Your task to perform on an android device: change the upload size in google photos Image 0: 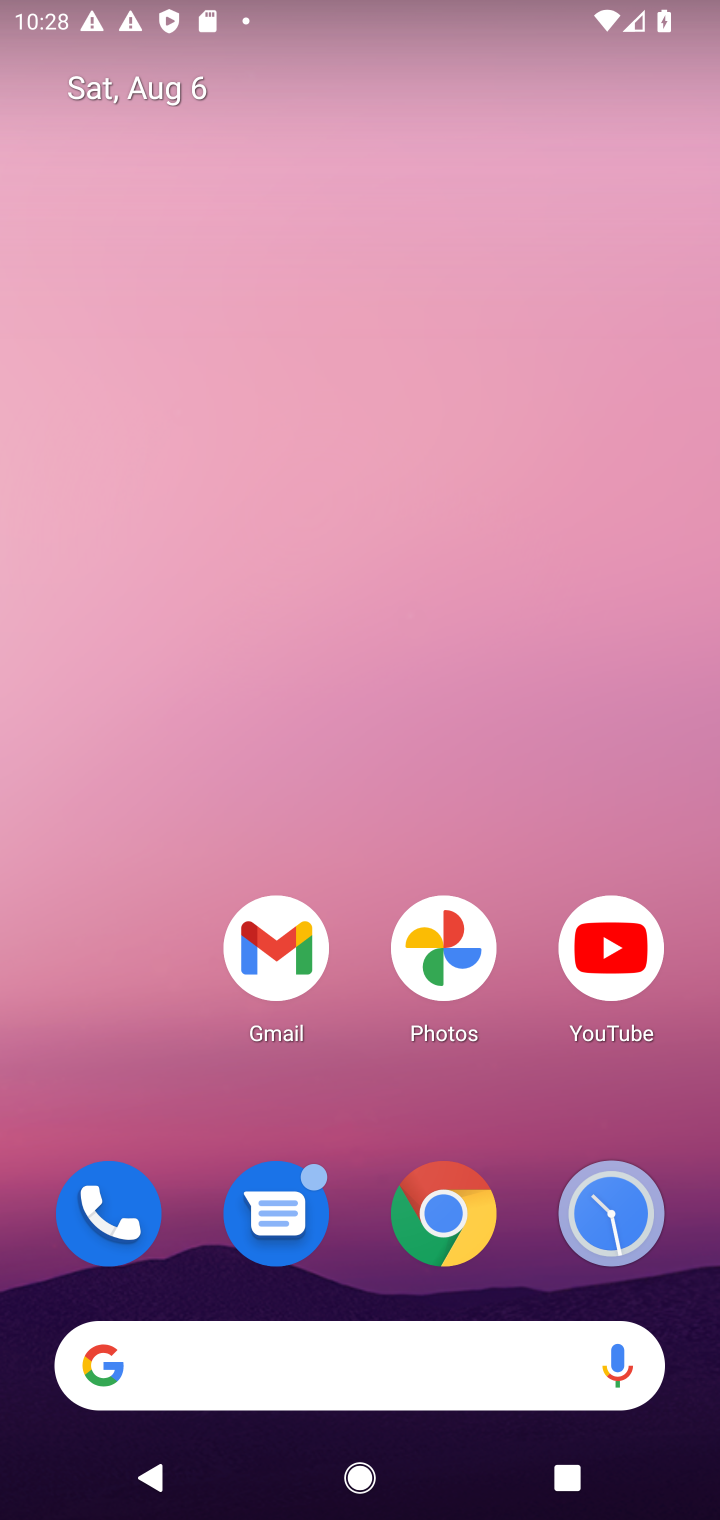
Step 0: click (444, 944)
Your task to perform on an android device: change the upload size in google photos Image 1: 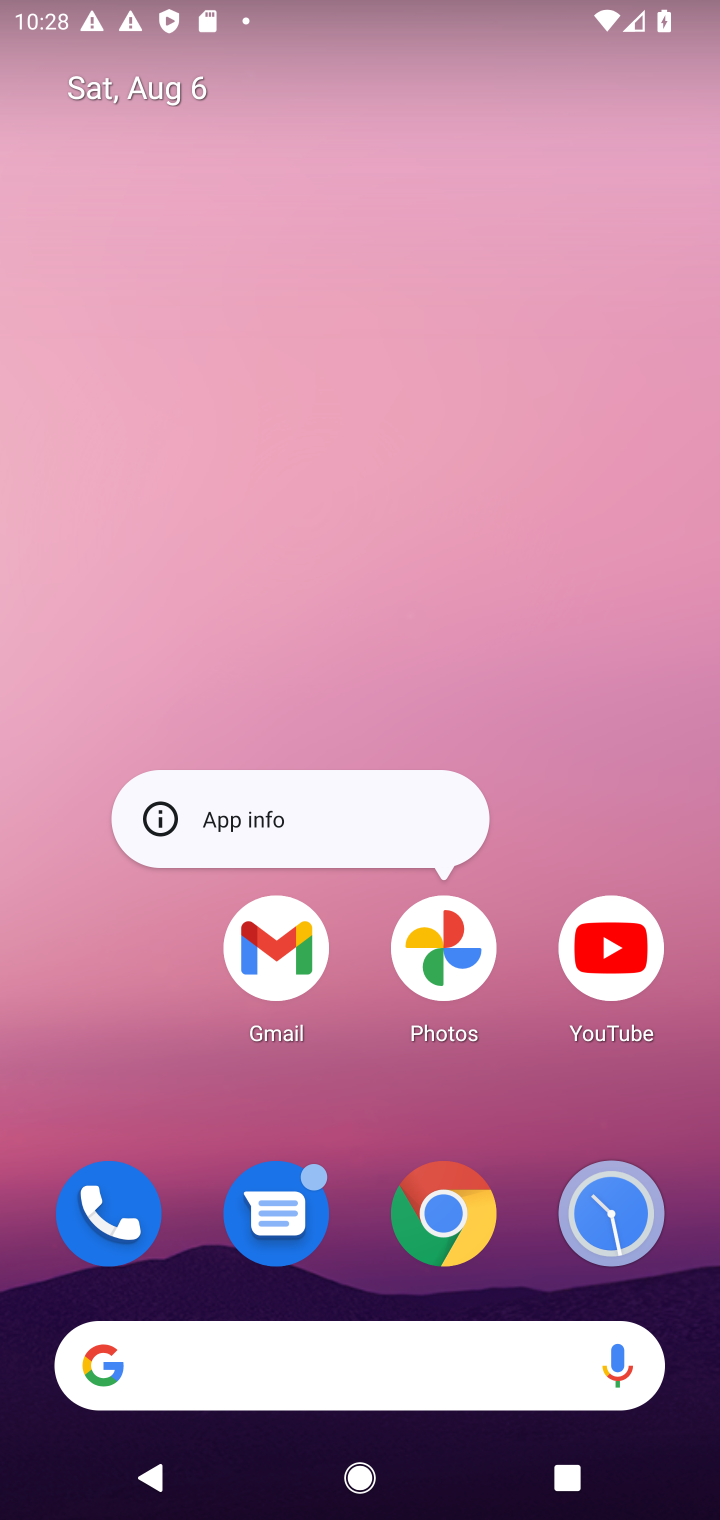
Step 1: click (444, 944)
Your task to perform on an android device: change the upload size in google photos Image 2: 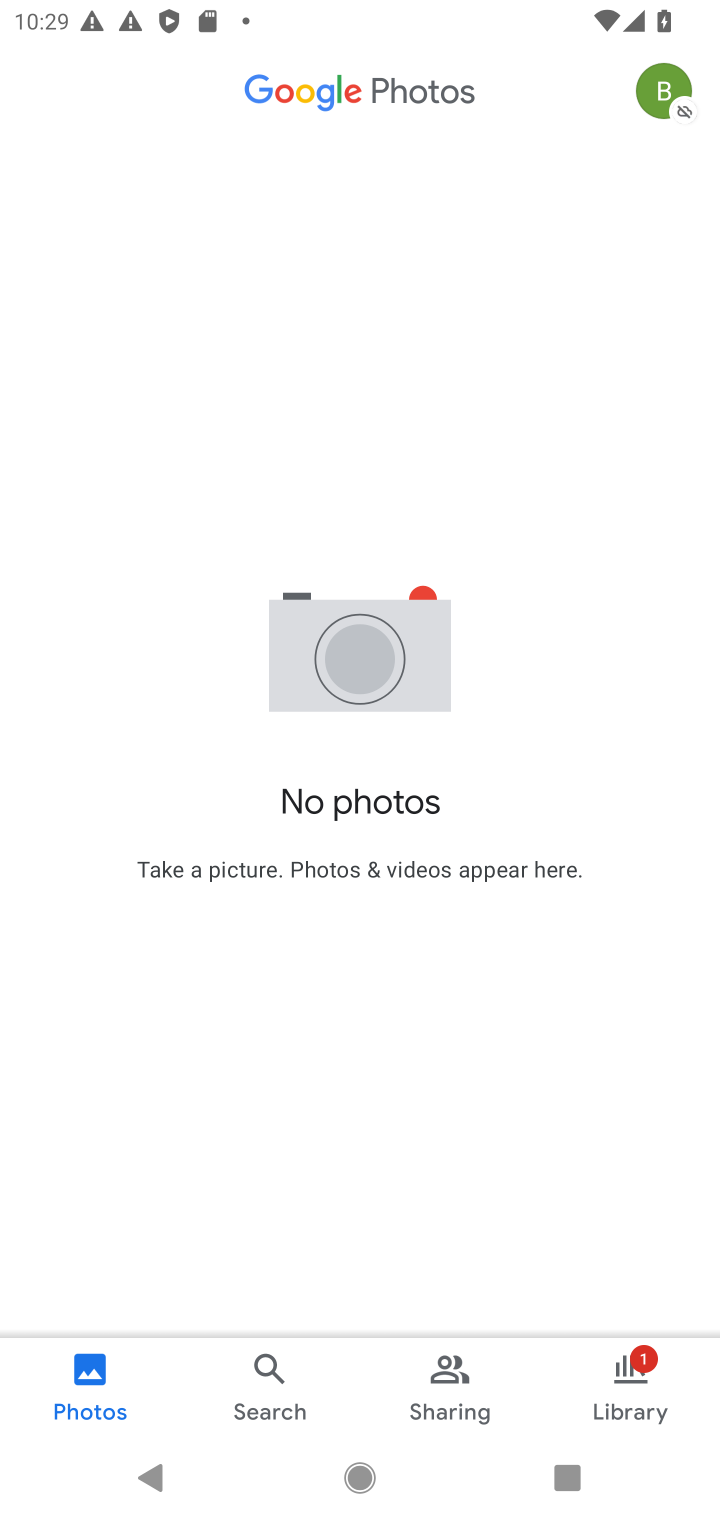
Step 2: press home button
Your task to perform on an android device: change the upload size in google photos Image 3: 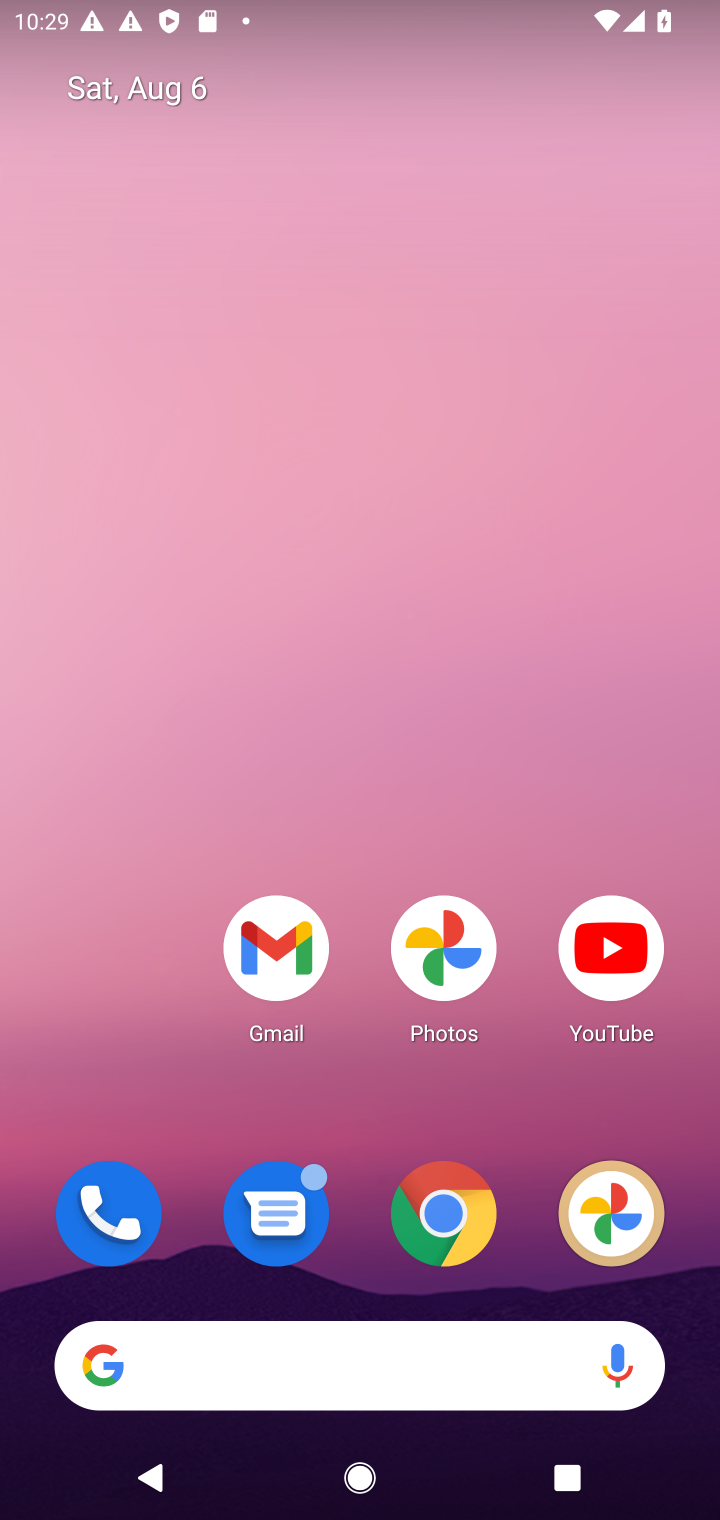
Step 3: drag from (377, 839) to (393, 140)
Your task to perform on an android device: change the upload size in google photos Image 4: 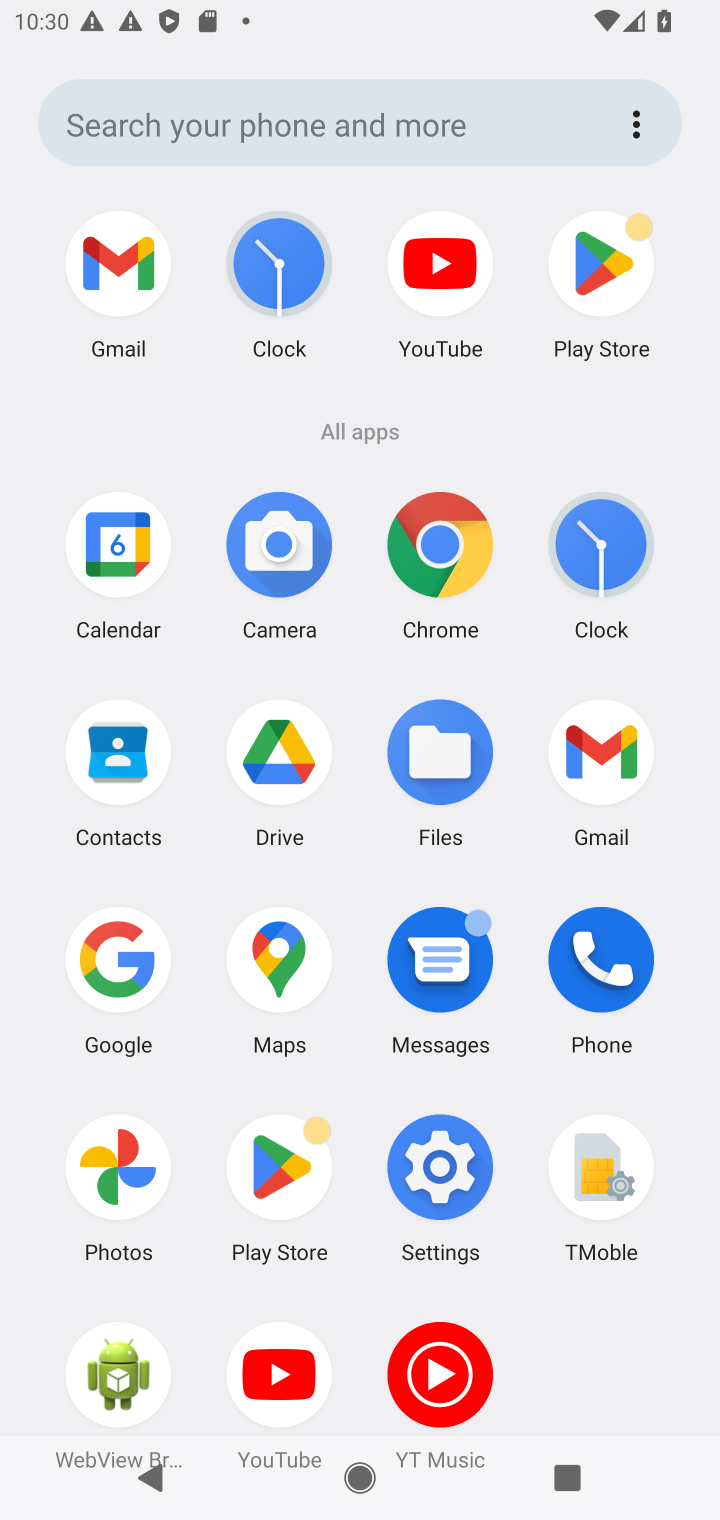
Step 4: click (120, 1159)
Your task to perform on an android device: change the upload size in google photos Image 5: 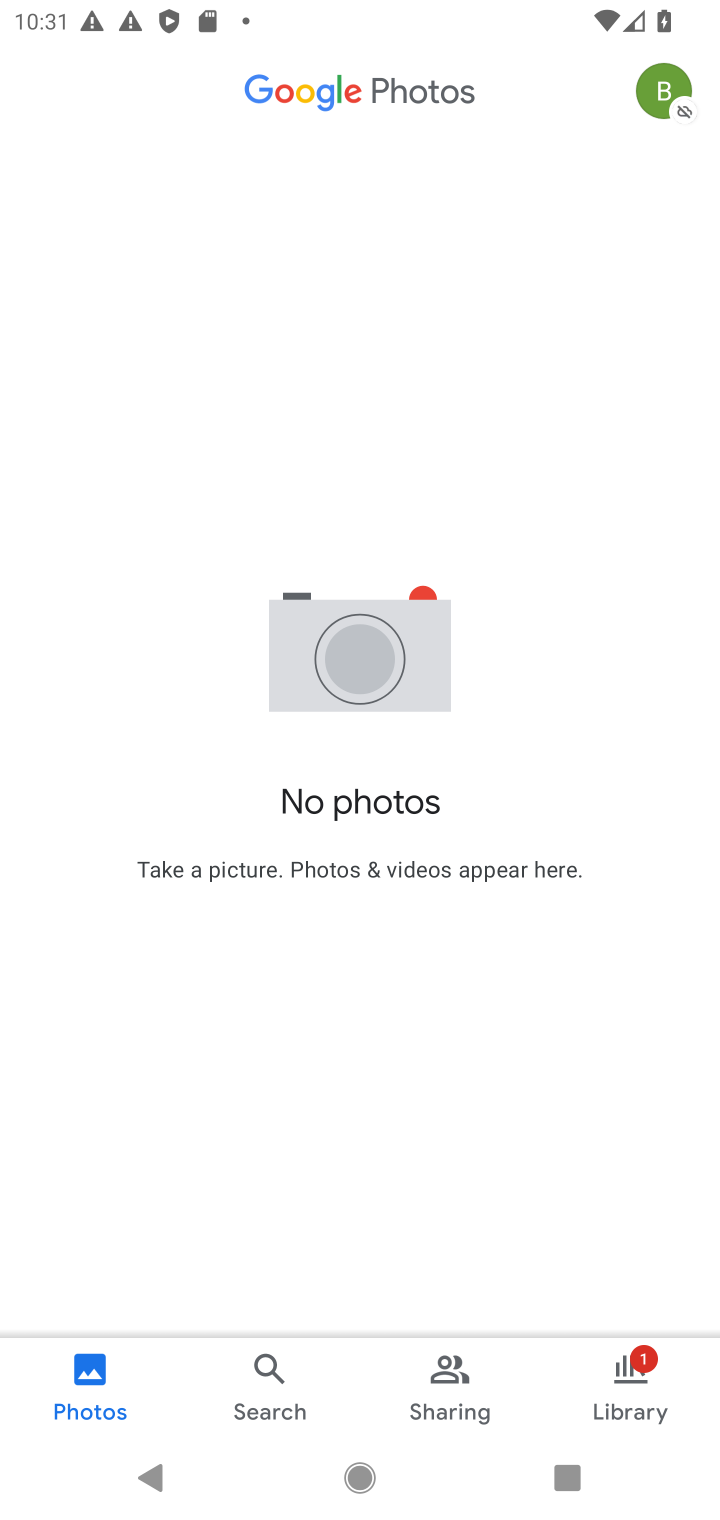
Step 5: press home button
Your task to perform on an android device: change the upload size in google photos Image 6: 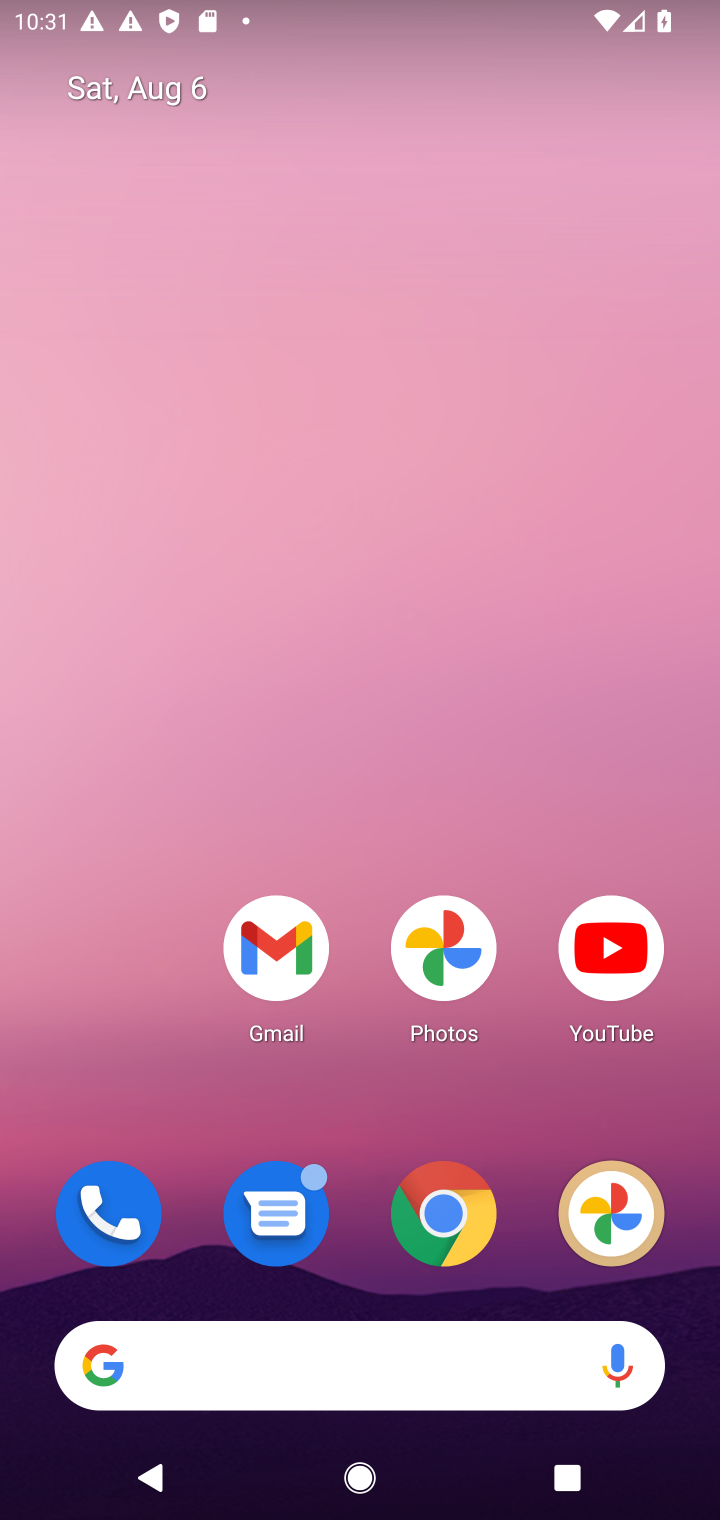
Step 6: click (467, 935)
Your task to perform on an android device: change the upload size in google photos Image 7: 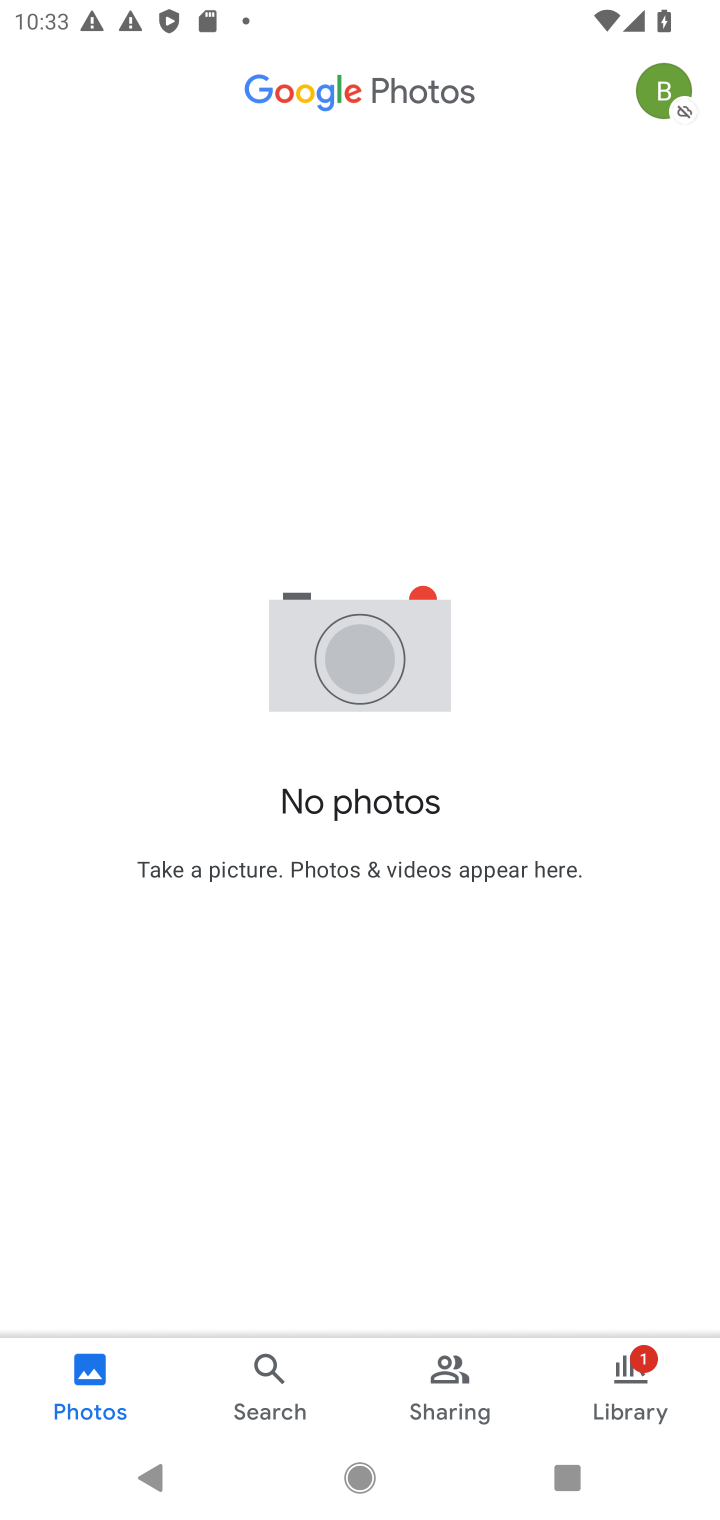
Step 7: press home button
Your task to perform on an android device: change the upload size in google photos Image 8: 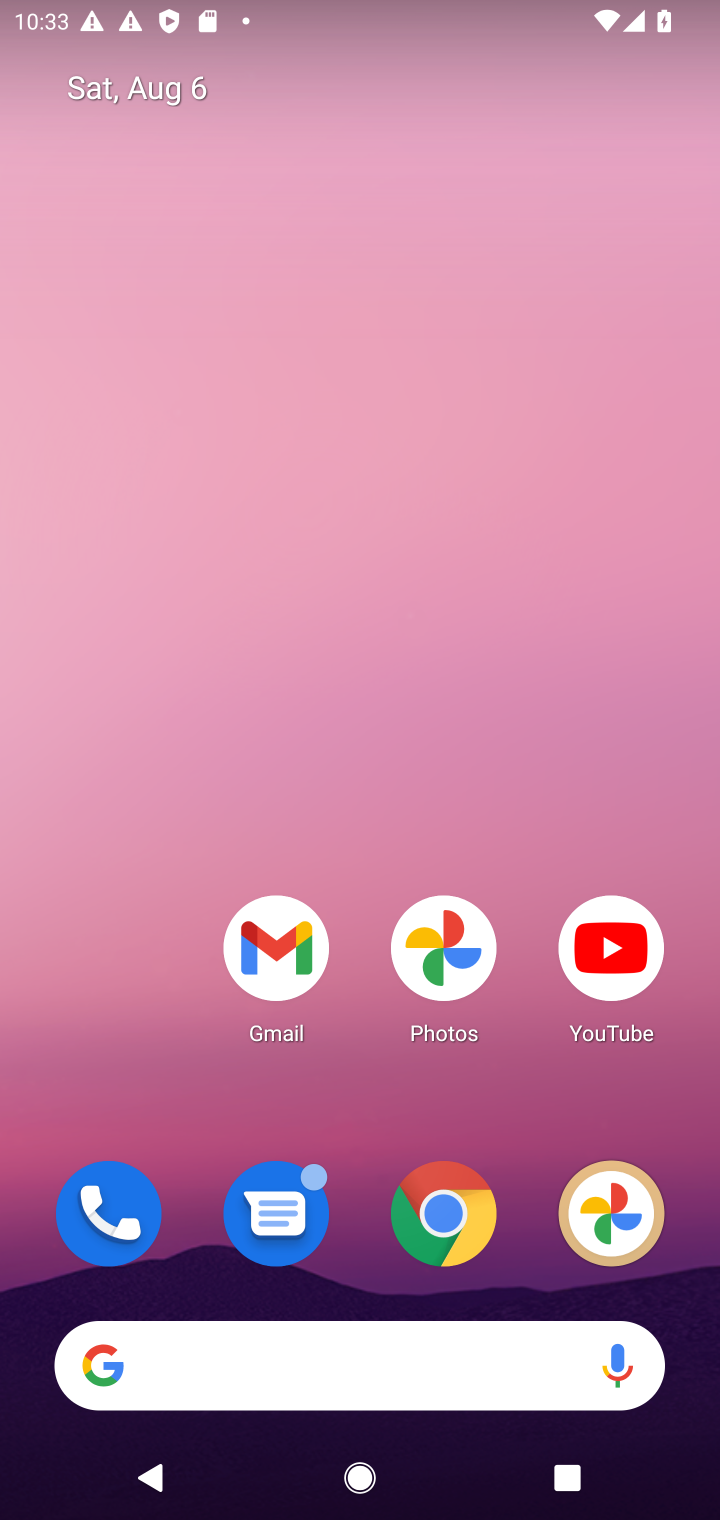
Step 8: drag from (139, 1053) to (168, 405)
Your task to perform on an android device: change the upload size in google photos Image 9: 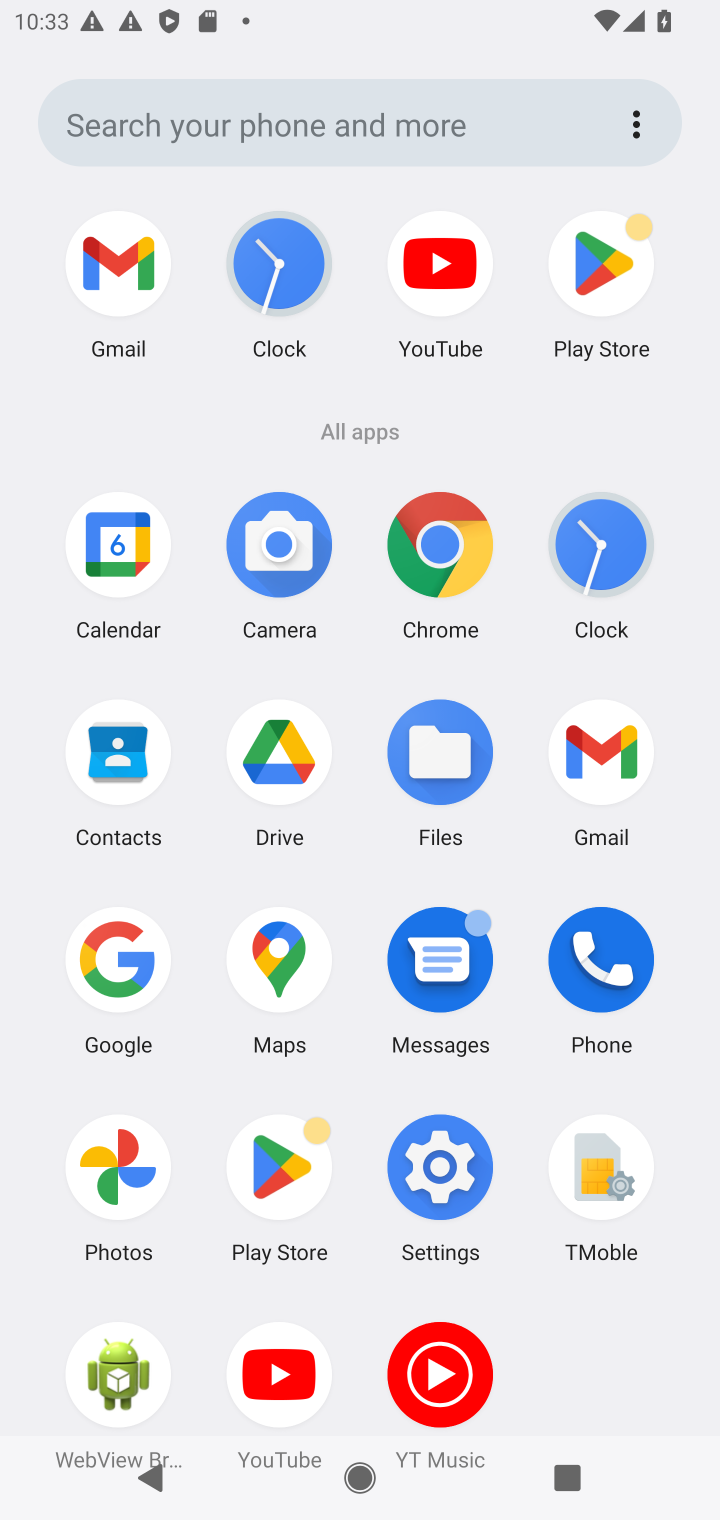
Step 9: click (121, 1164)
Your task to perform on an android device: change the upload size in google photos Image 10: 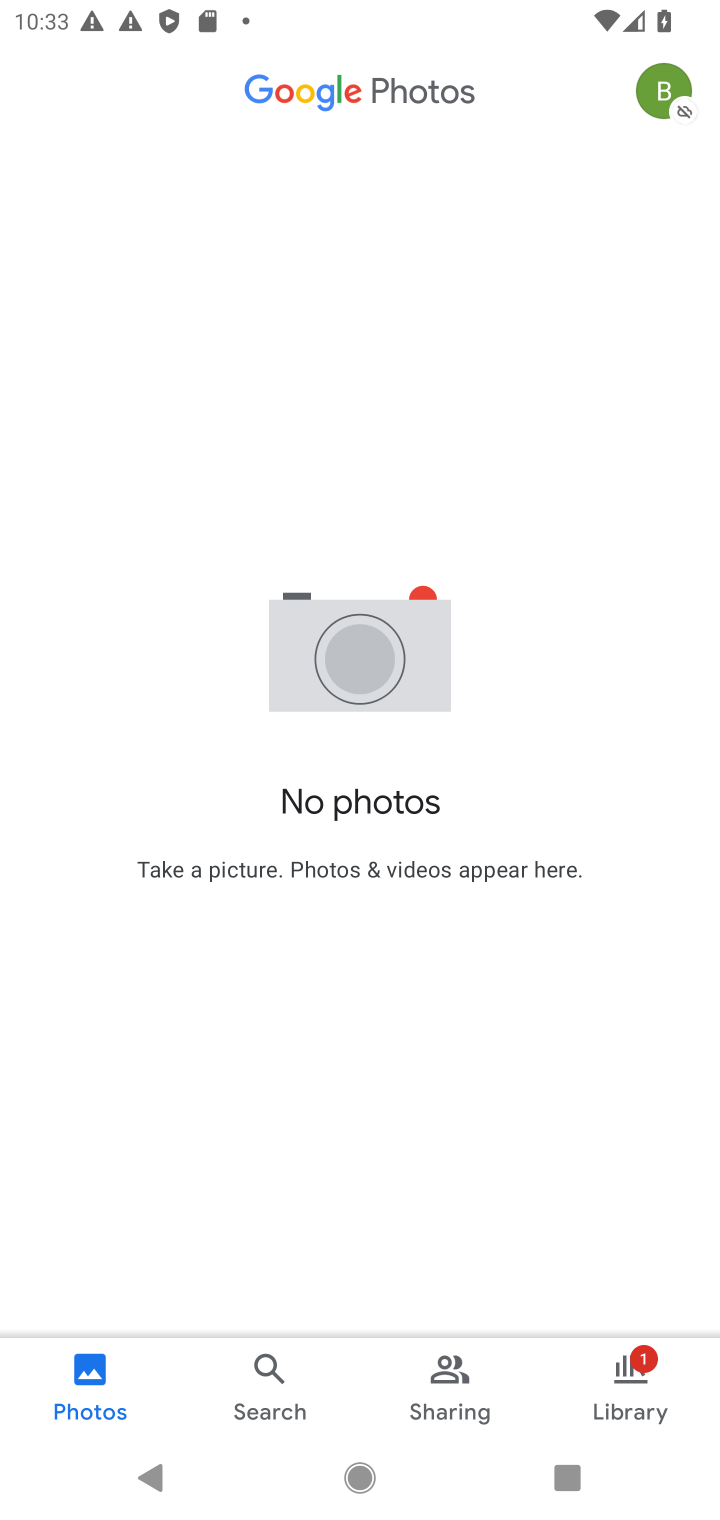
Step 10: task complete